Your task to perform on an android device: Go to location settings Image 0: 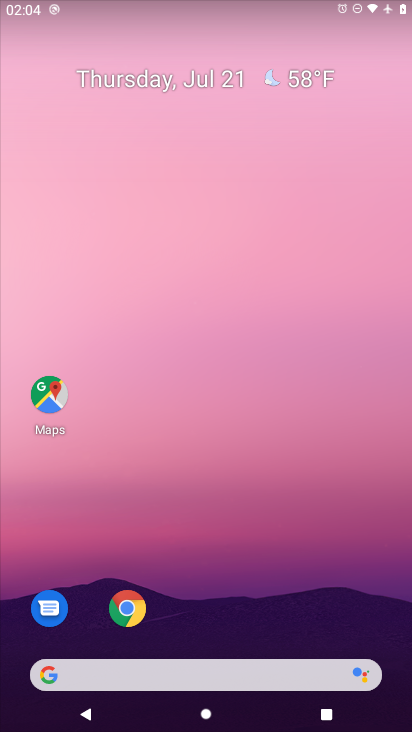
Step 0: press home button
Your task to perform on an android device: Go to location settings Image 1: 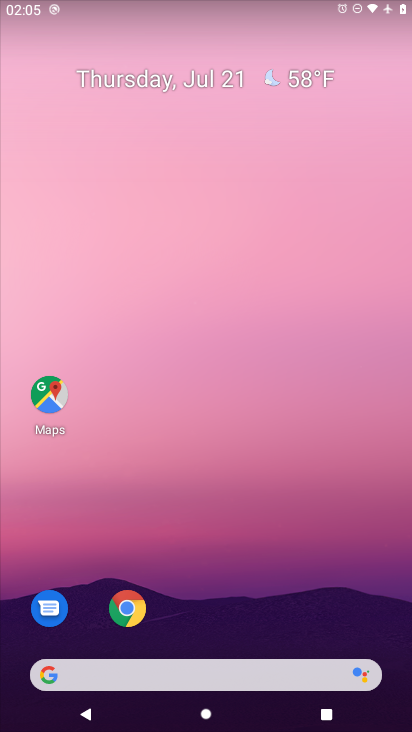
Step 1: drag from (263, 622) to (261, 19)
Your task to perform on an android device: Go to location settings Image 2: 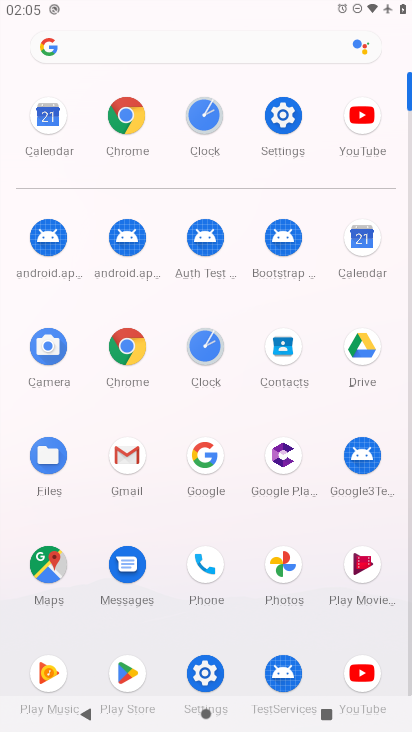
Step 2: click (283, 114)
Your task to perform on an android device: Go to location settings Image 3: 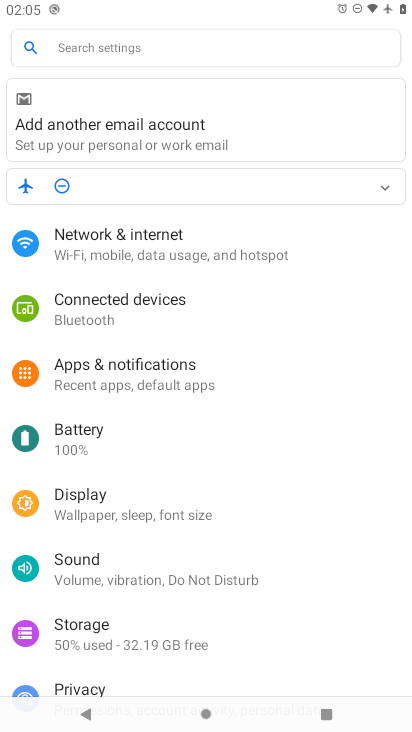
Step 3: drag from (361, 627) to (377, 9)
Your task to perform on an android device: Go to location settings Image 4: 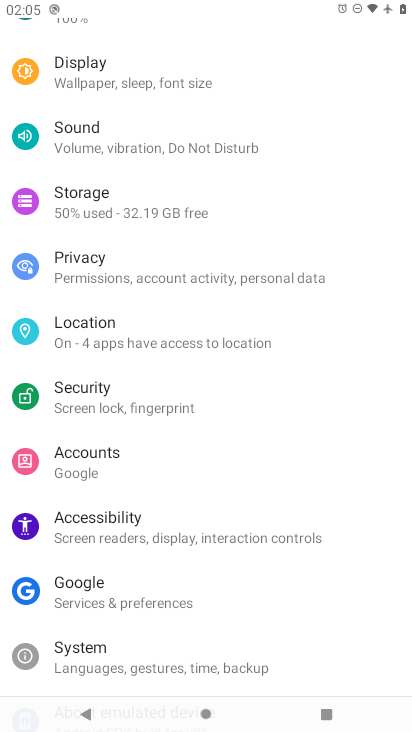
Step 4: click (99, 329)
Your task to perform on an android device: Go to location settings Image 5: 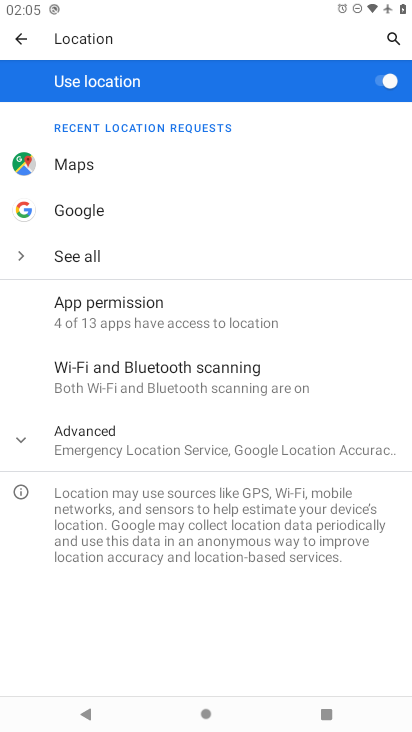
Step 5: task complete